Your task to perform on an android device: Open notification settings Image 0: 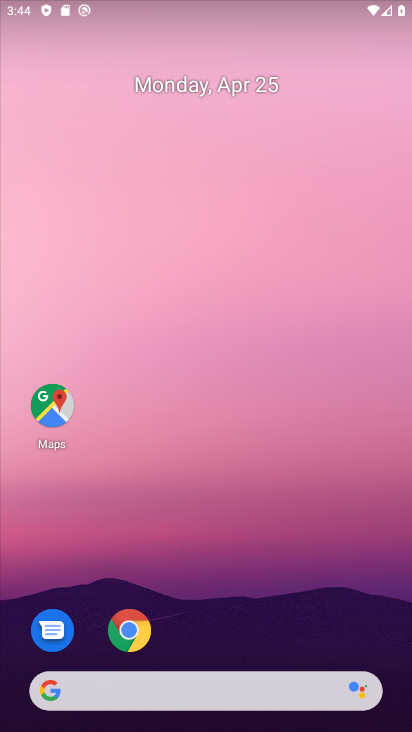
Step 0: drag from (313, 524) to (351, 69)
Your task to perform on an android device: Open notification settings Image 1: 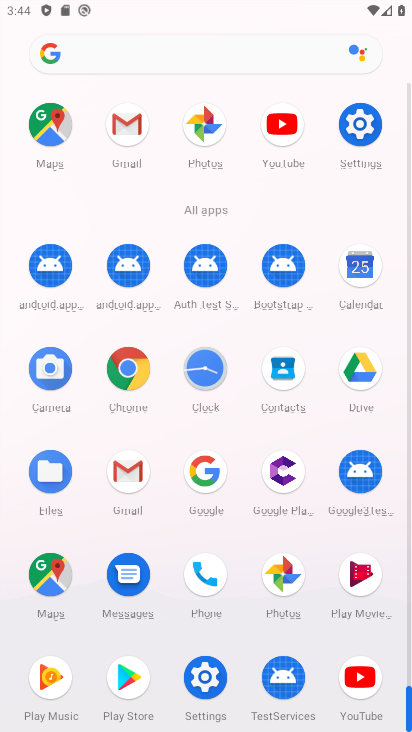
Step 1: click (365, 106)
Your task to perform on an android device: Open notification settings Image 2: 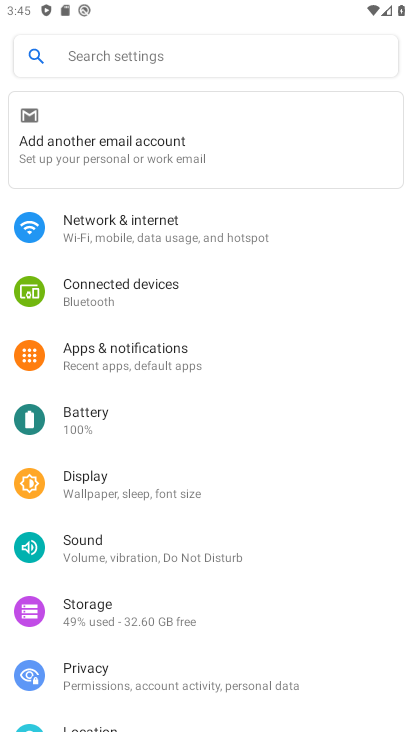
Step 2: click (141, 370)
Your task to perform on an android device: Open notification settings Image 3: 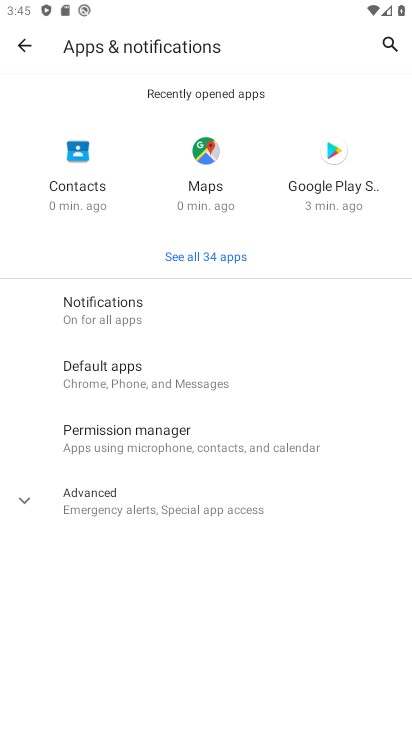
Step 3: click (97, 317)
Your task to perform on an android device: Open notification settings Image 4: 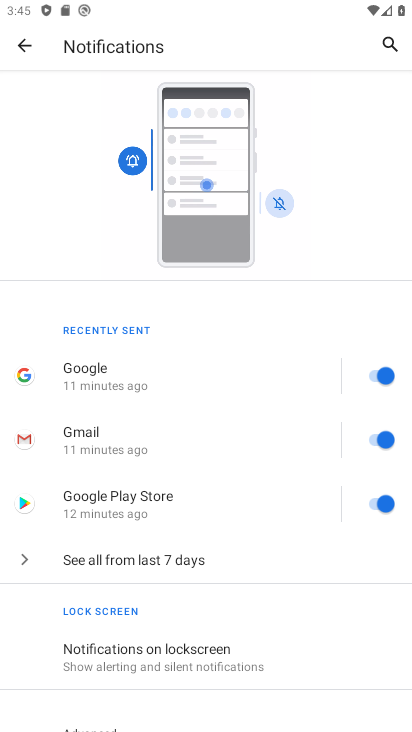
Step 4: drag from (320, 584) to (377, 201)
Your task to perform on an android device: Open notification settings Image 5: 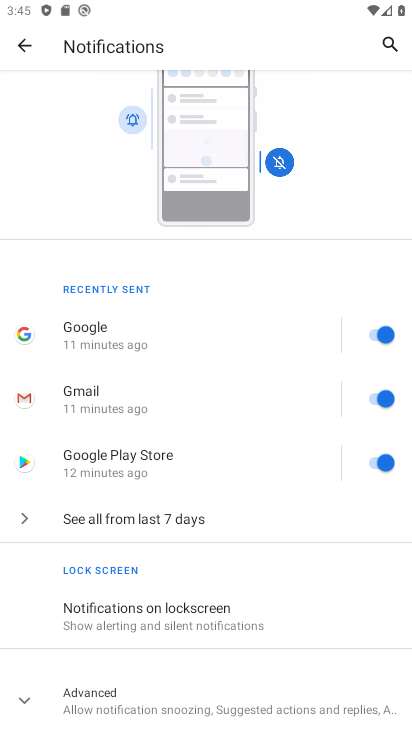
Step 5: click (124, 713)
Your task to perform on an android device: Open notification settings Image 6: 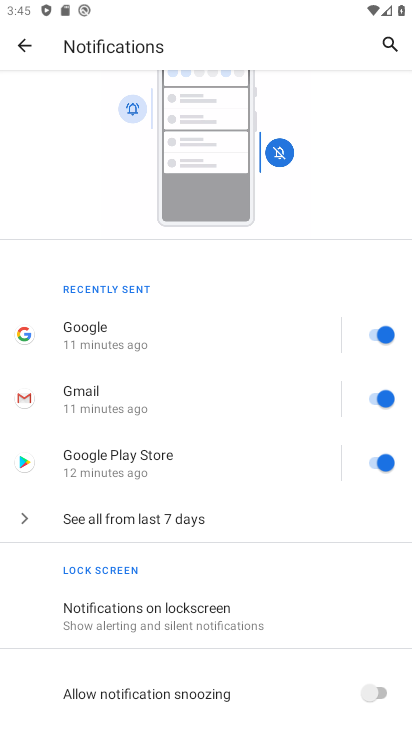
Step 6: task complete